Your task to perform on an android device: set an alarm Image 0: 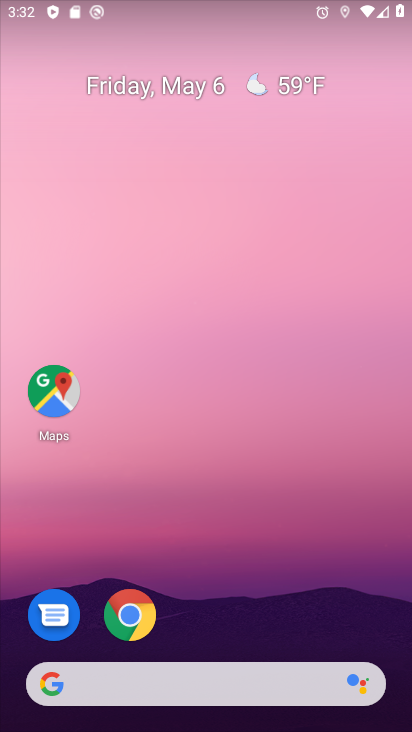
Step 0: drag from (297, 607) to (322, 14)
Your task to perform on an android device: set an alarm Image 1: 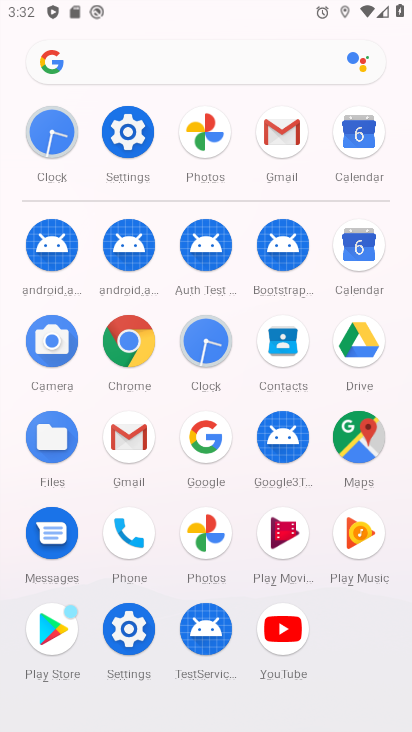
Step 1: click (49, 139)
Your task to perform on an android device: set an alarm Image 2: 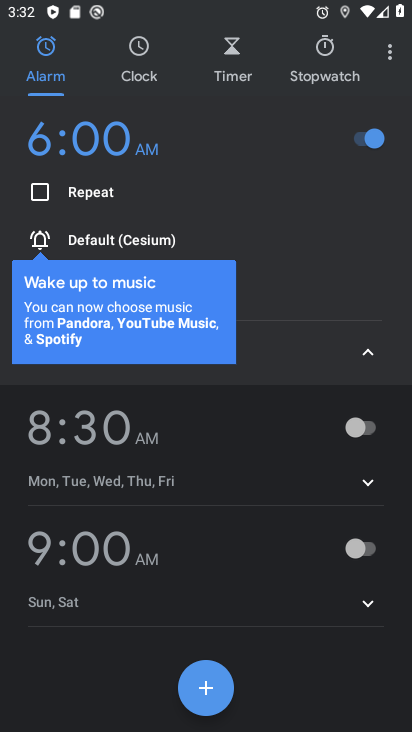
Step 2: click (198, 685)
Your task to perform on an android device: set an alarm Image 3: 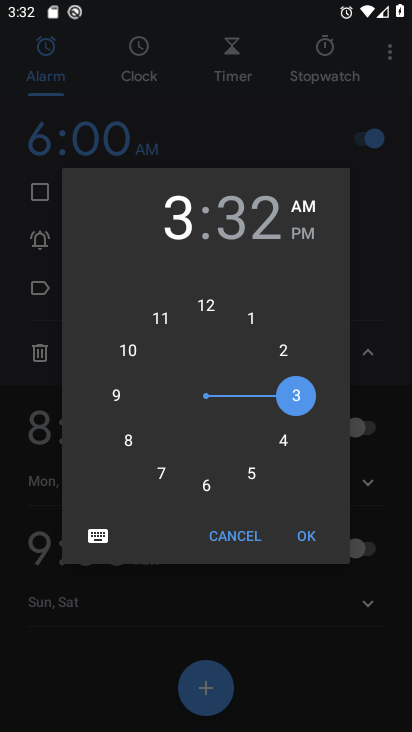
Step 3: click (166, 474)
Your task to perform on an android device: set an alarm Image 4: 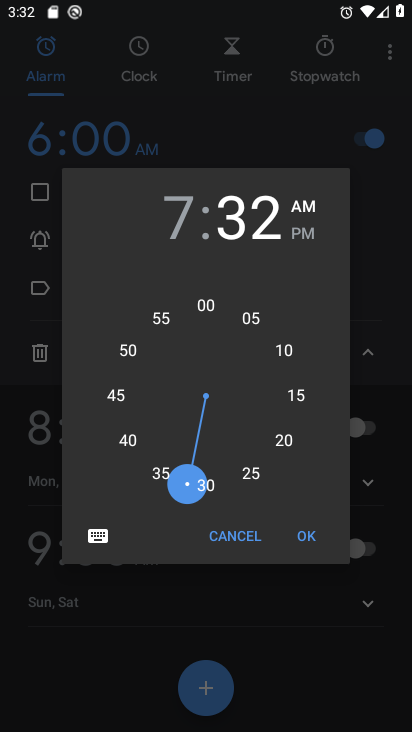
Step 4: click (201, 309)
Your task to perform on an android device: set an alarm Image 5: 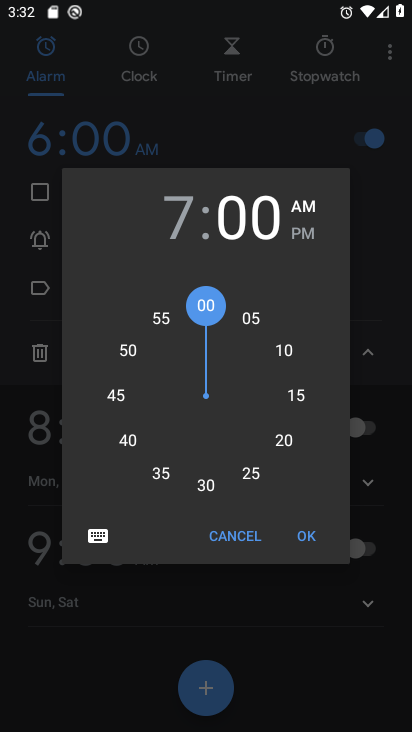
Step 5: click (305, 546)
Your task to perform on an android device: set an alarm Image 6: 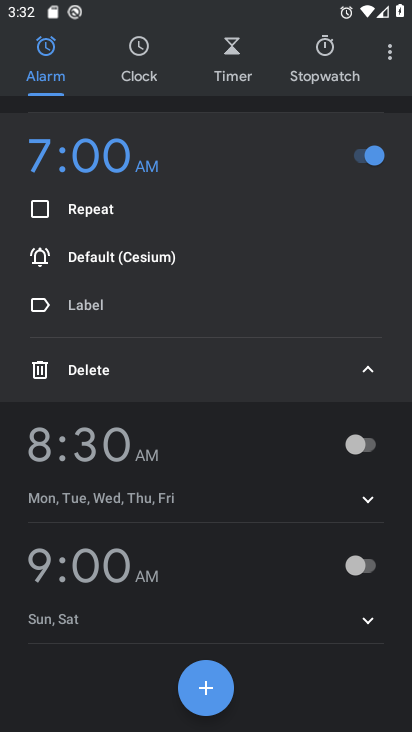
Step 6: task complete